Your task to perform on an android device: turn on the 12-hour format for clock Image 0: 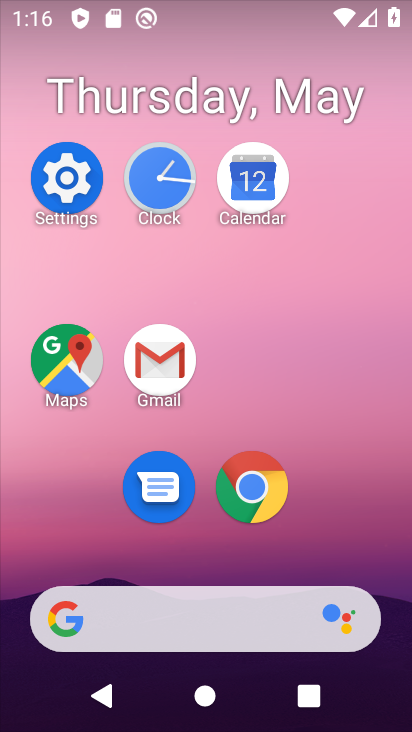
Step 0: click (158, 178)
Your task to perform on an android device: turn on the 12-hour format for clock Image 1: 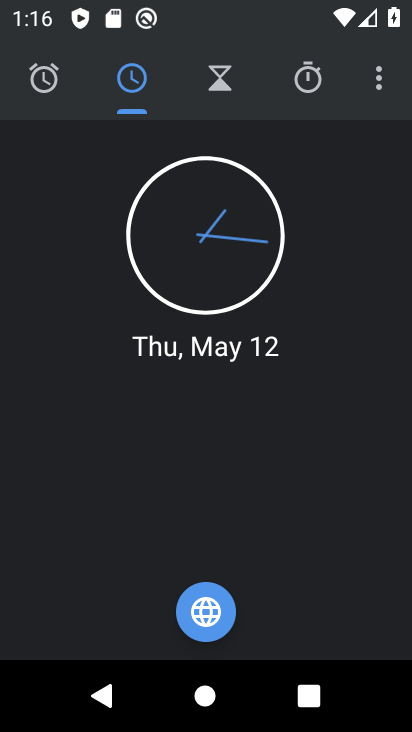
Step 1: click (386, 91)
Your task to perform on an android device: turn on the 12-hour format for clock Image 2: 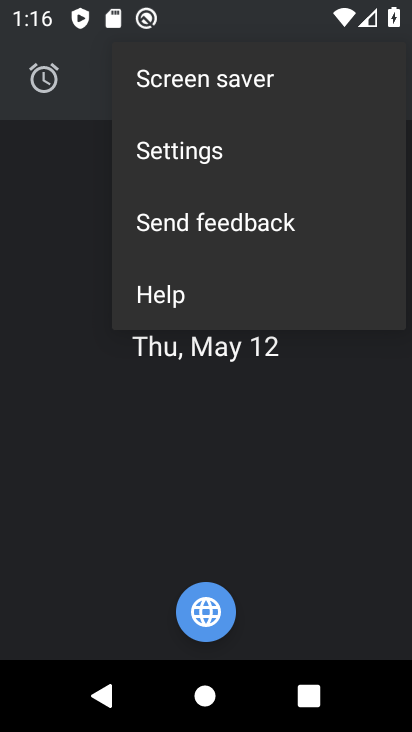
Step 2: click (194, 159)
Your task to perform on an android device: turn on the 12-hour format for clock Image 3: 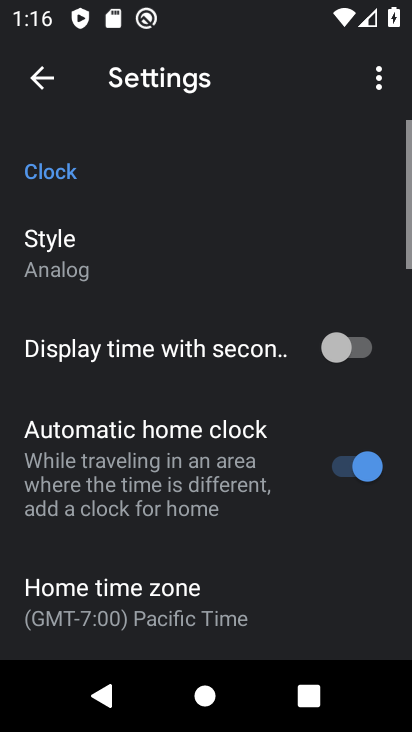
Step 3: drag from (178, 523) to (198, 241)
Your task to perform on an android device: turn on the 12-hour format for clock Image 4: 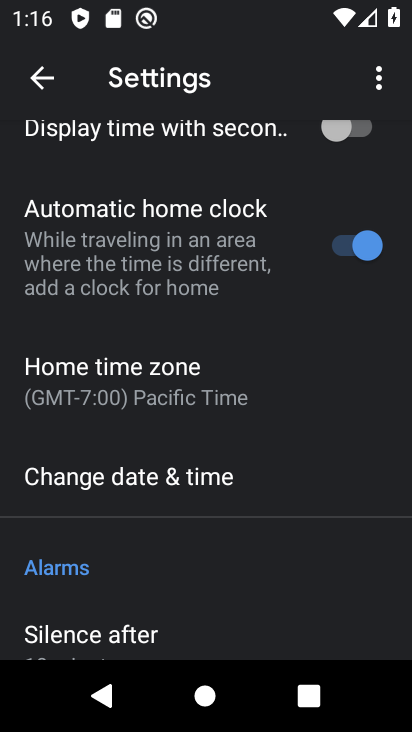
Step 4: click (143, 470)
Your task to perform on an android device: turn on the 12-hour format for clock Image 5: 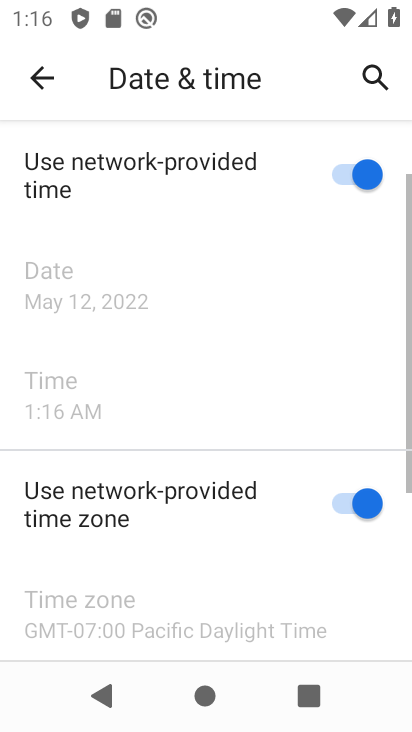
Step 5: task complete